Your task to perform on an android device: Go to sound settings Image 0: 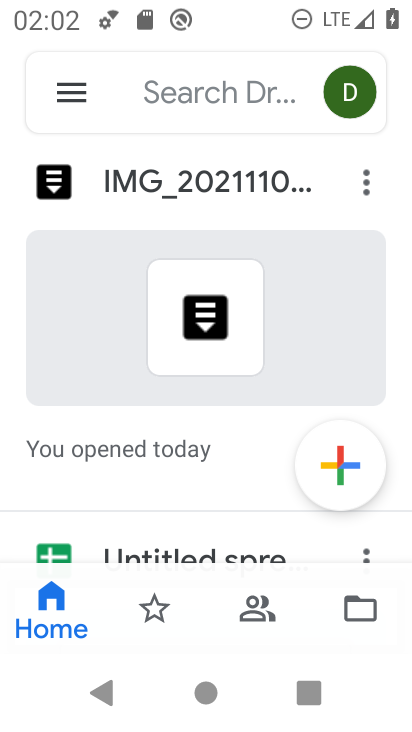
Step 0: press home button
Your task to perform on an android device: Go to sound settings Image 1: 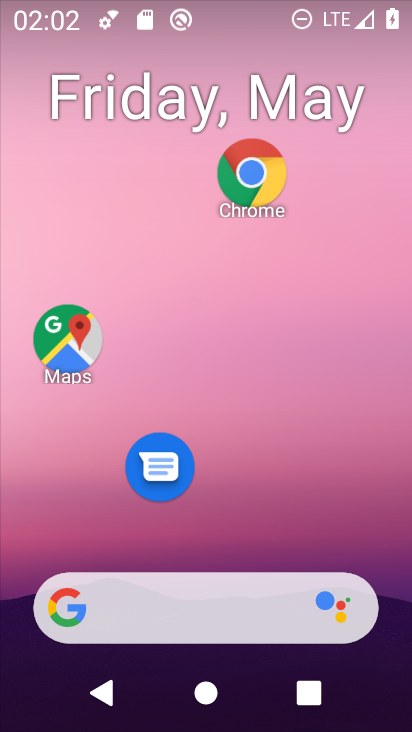
Step 1: drag from (301, 643) to (254, 107)
Your task to perform on an android device: Go to sound settings Image 2: 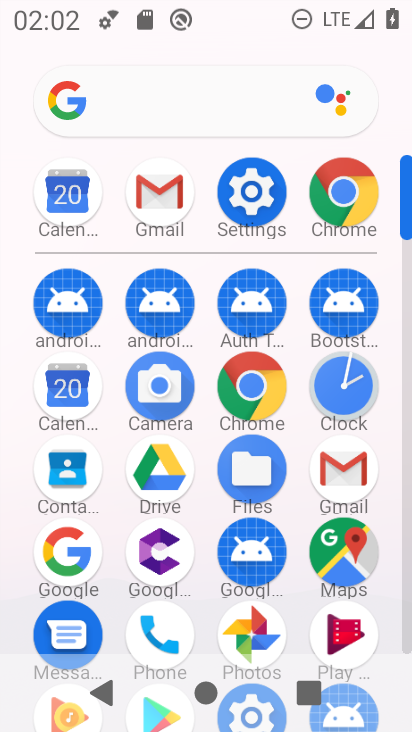
Step 2: click (242, 200)
Your task to perform on an android device: Go to sound settings Image 3: 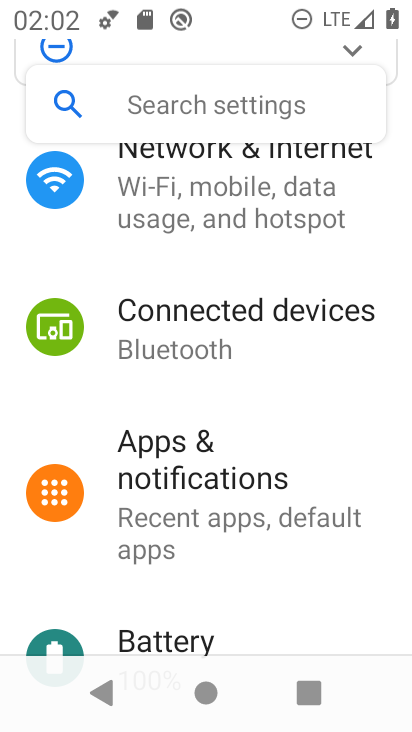
Step 3: click (164, 109)
Your task to perform on an android device: Go to sound settings Image 4: 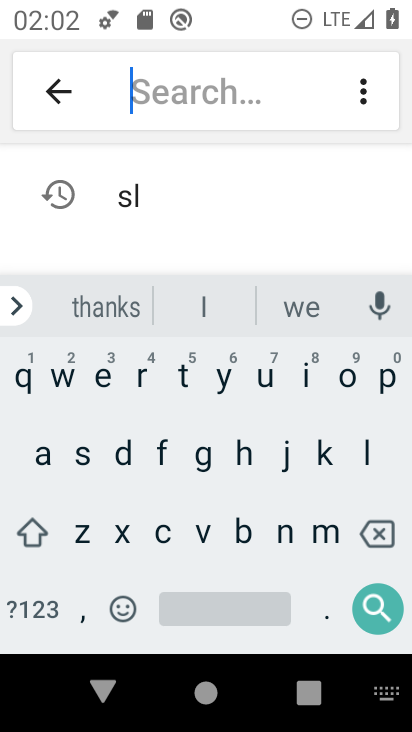
Step 4: click (80, 453)
Your task to perform on an android device: Go to sound settings Image 5: 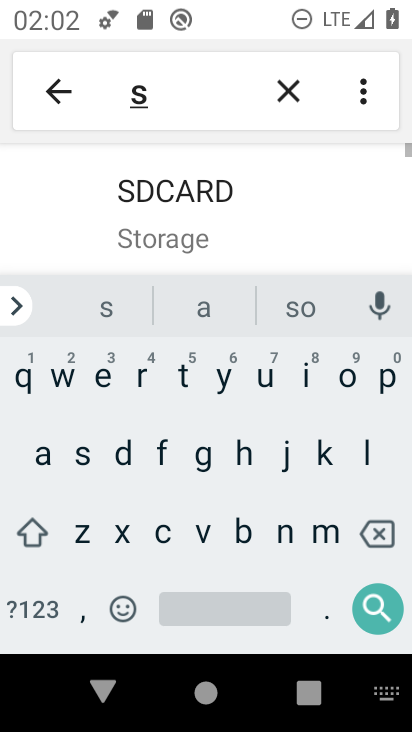
Step 5: click (348, 380)
Your task to perform on an android device: Go to sound settings Image 6: 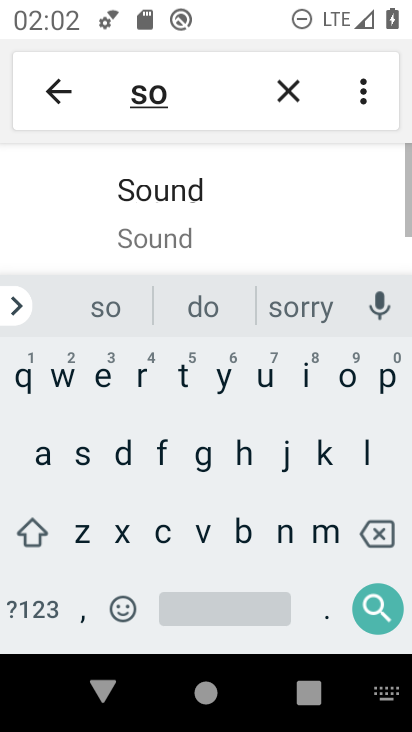
Step 6: click (195, 197)
Your task to perform on an android device: Go to sound settings Image 7: 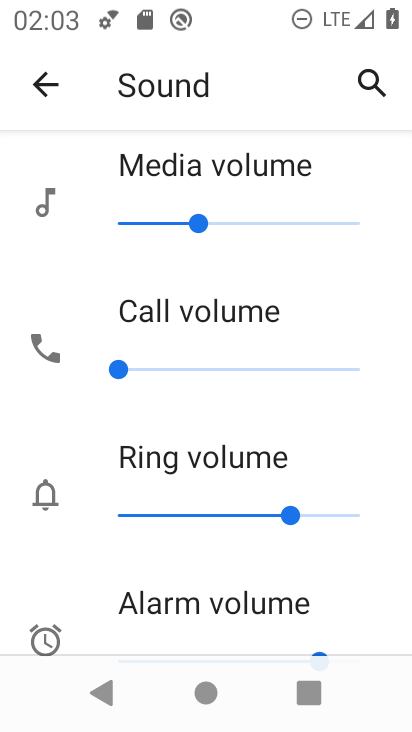
Step 7: task complete